Your task to perform on an android device: star an email in the gmail app Image 0: 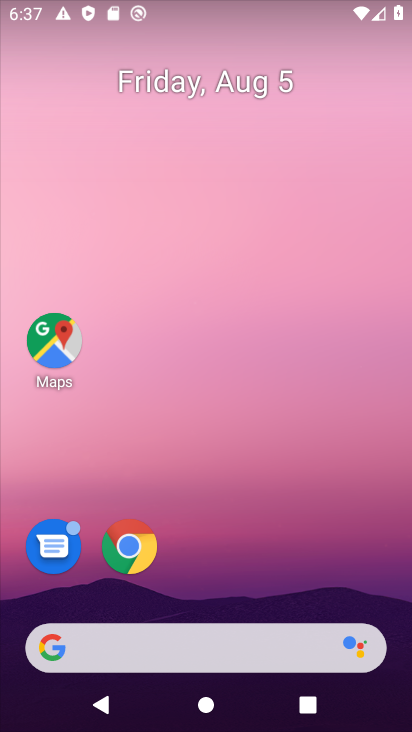
Step 0: click (334, 9)
Your task to perform on an android device: star an email in the gmail app Image 1: 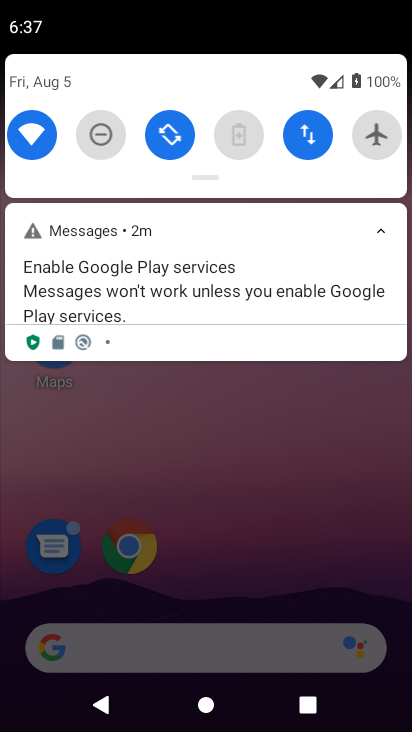
Step 1: drag from (178, 609) to (246, 94)
Your task to perform on an android device: star an email in the gmail app Image 2: 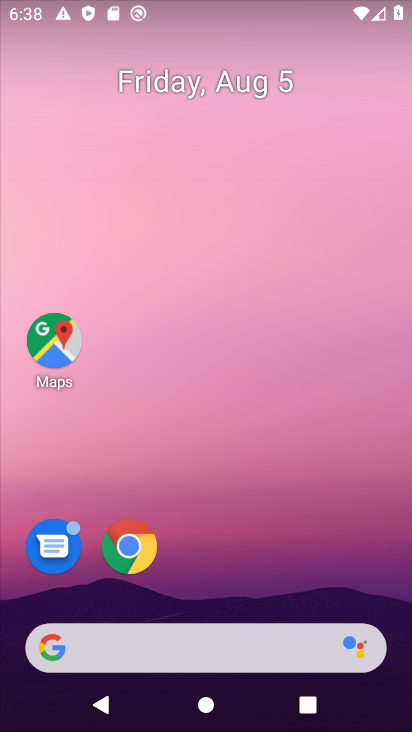
Step 2: click (314, 27)
Your task to perform on an android device: star an email in the gmail app Image 3: 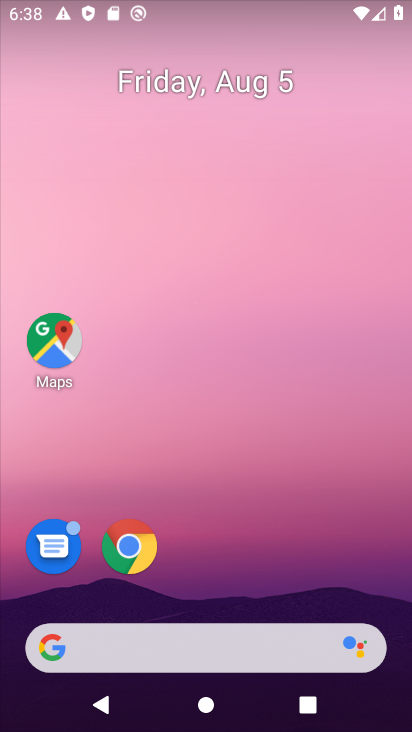
Step 3: drag from (183, 590) to (343, 21)
Your task to perform on an android device: star an email in the gmail app Image 4: 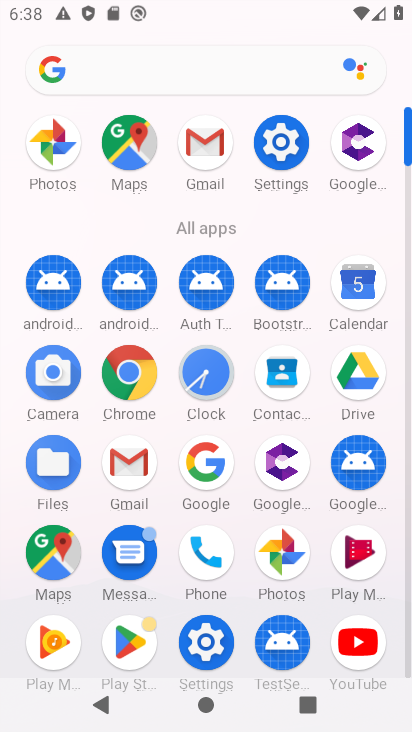
Step 4: click (122, 462)
Your task to perform on an android device: star an email in the gmail app Image 5: 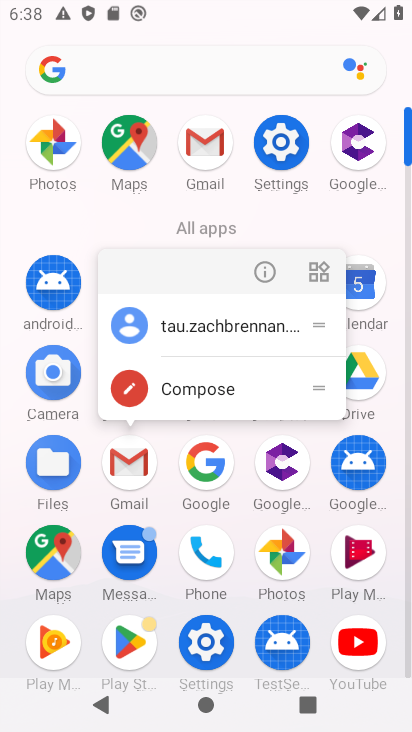
Step 5: click (265, 263)
Your task to perform on an android device: star an email in the gmail app Image 6: 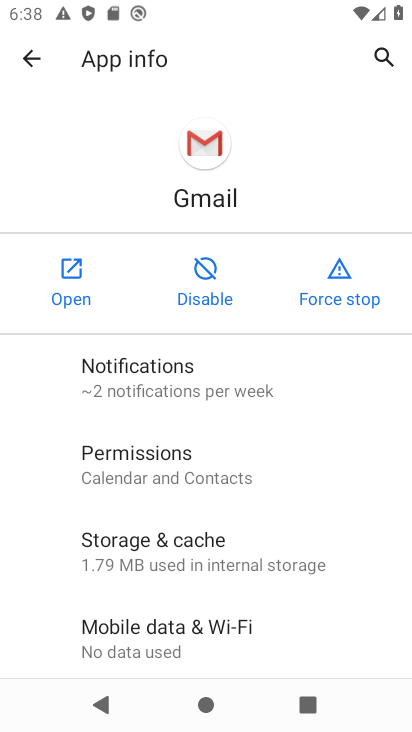
Step 6: click (54, 259)
Your task to perform on an android device: star an email in the gmail app Image 7: 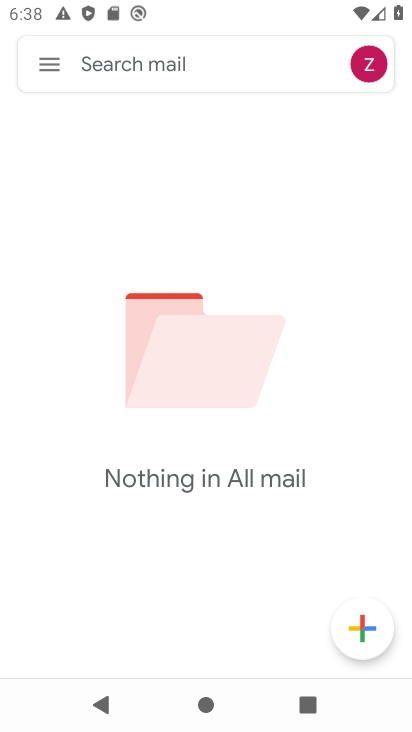
Step 7: click (50, 59)
Your task to perform on an android device: star an email in the gmail app Image 8: 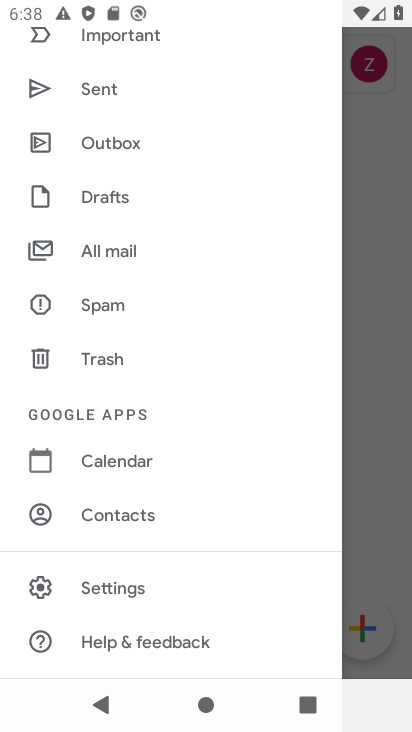
Step 8: drag from (143, 190) to (243, 729)
Your task to perform on an android device: star an email in the gmail app Image 9: 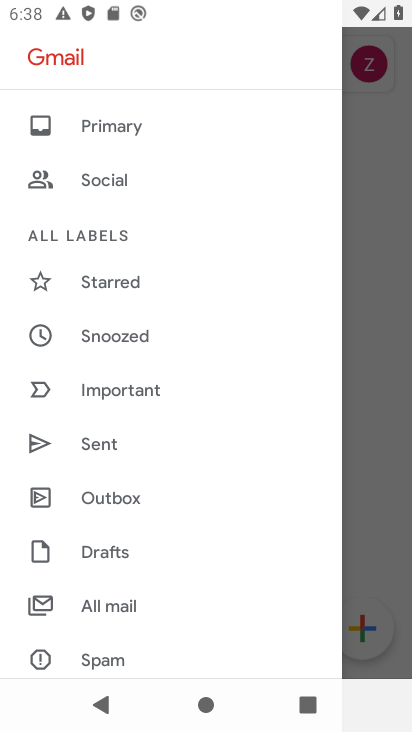
Step 9: click (139, 127)
Your task to perform on an android device: star an email in the gmail app Image 10: 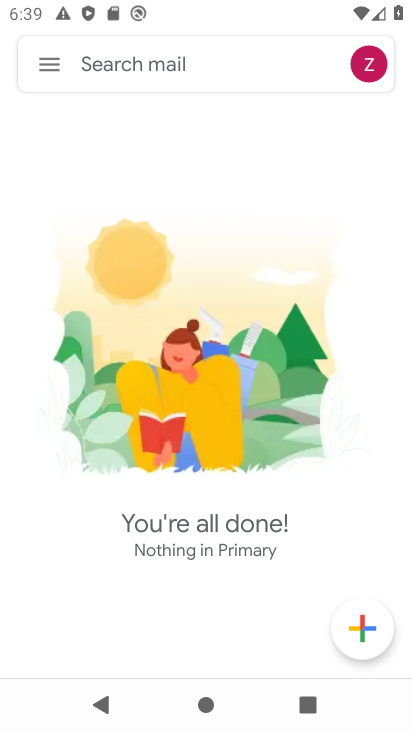
Step 10: click (212, 413)
Your task to perform on an android device: star an email in the gmail app Image 11: 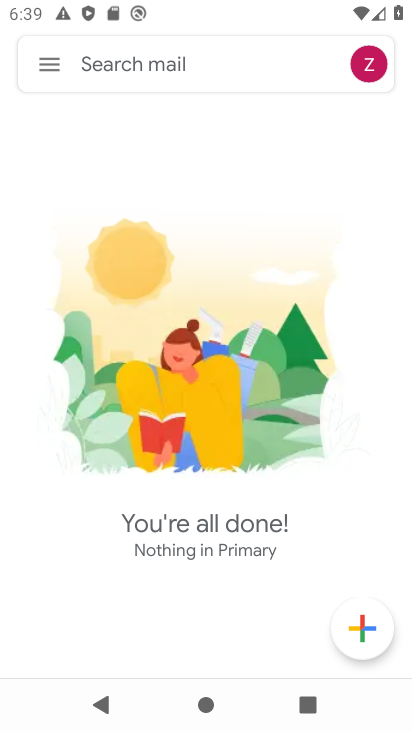
Step 11: task complete